Your task to perform on an android device: Open internet settings Image 0: 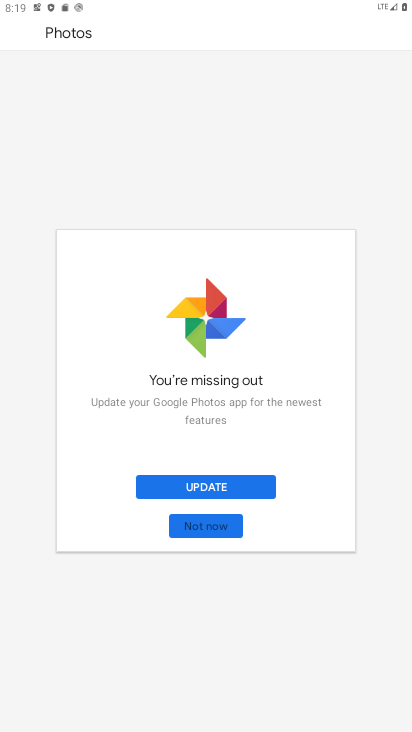
Step 0: press home button
Your task to perform on an android device: Open internet settings Image 1: 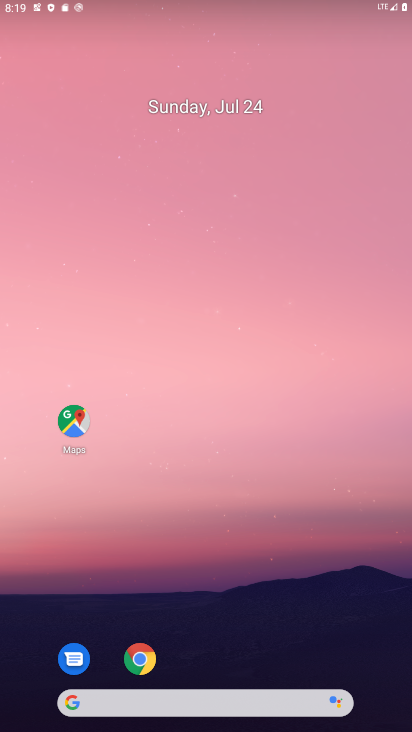
Step 1: drag from (199, 716) to (163, 229)
Your task to perform on an android device: Open internet settings Image 2: 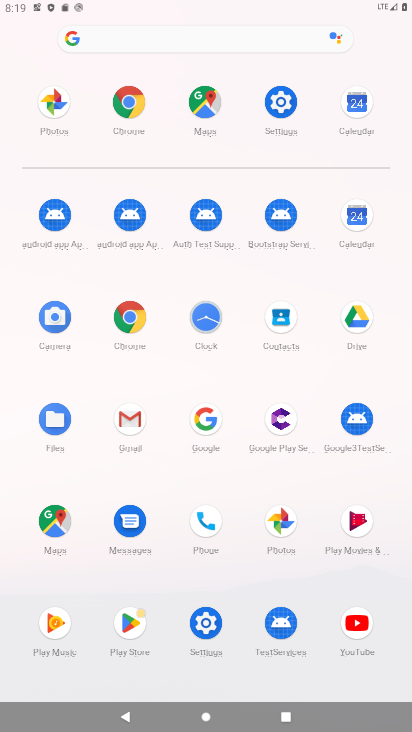
Step 2: click (274, 102)
Your task to perform on an android device: Open internet settings Image 3: 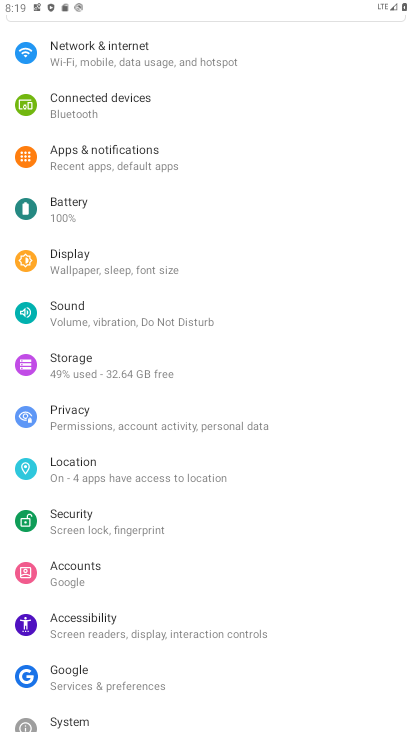
Step 3: drag from (145, 136) to (185, 561)
Your task to perform on an android device: Open internet settings Image 4: 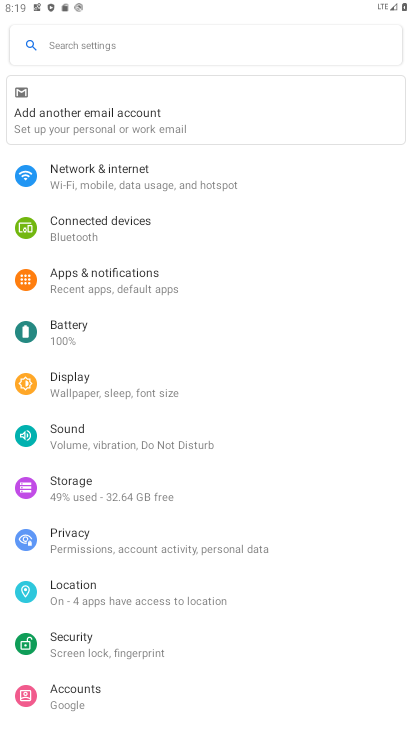
Step 4: click (90, 180)
Your task to perform on an android device: Open internet settings Image 5: 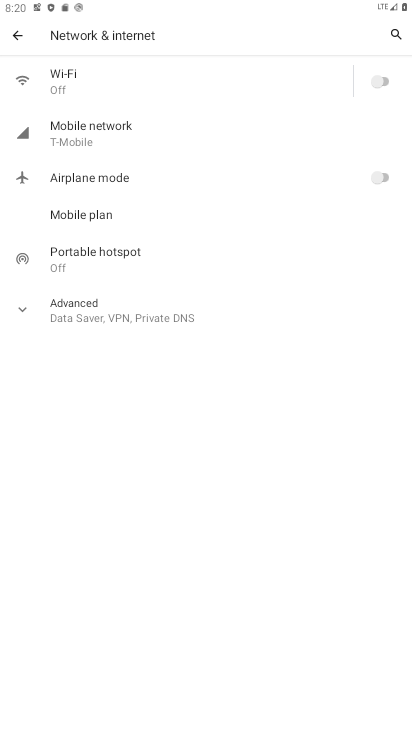
Step 5: task complete